Your task to perform on an android device: Open settings Image 0: 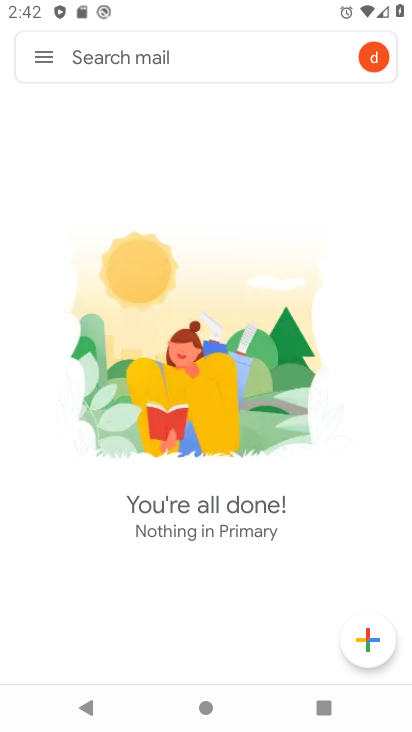
Step 0: press home button
Your task to perform on an android device: Open settings Image 1: 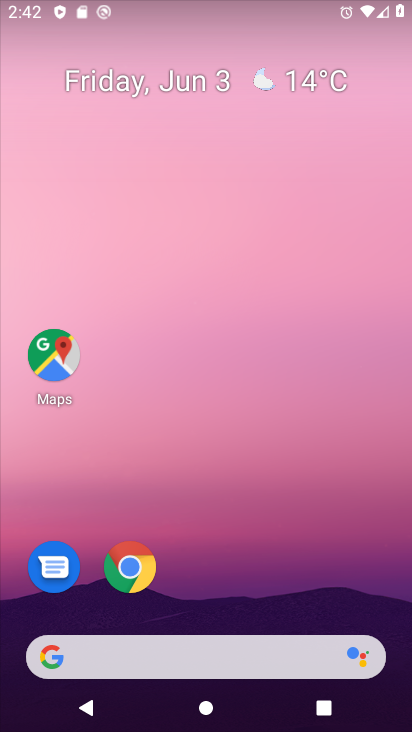
Step 1: drag from (246, 699) to (278, 152)
Your task to perform on an android device: Open settings Image 2: 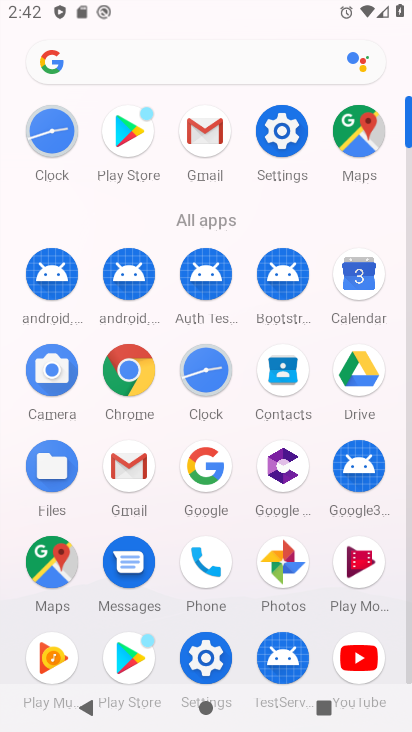
Step 2: click (212, 673)
Your task to perform on an android device: Open settings Image 3: 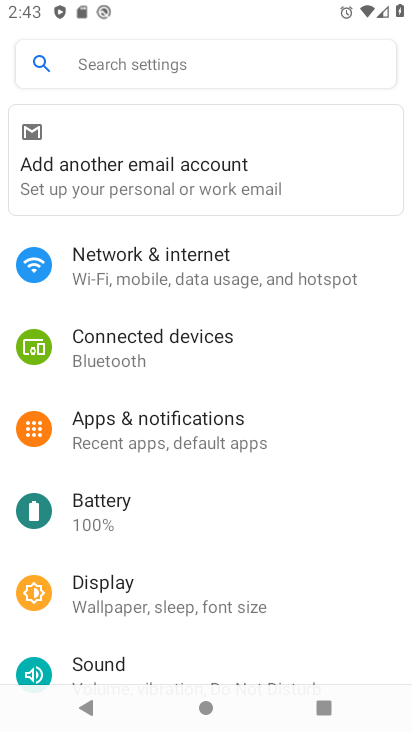
Step 3: task complete